Your task to perform on an android device: Set the phone to "Do not disturb". Image 0: 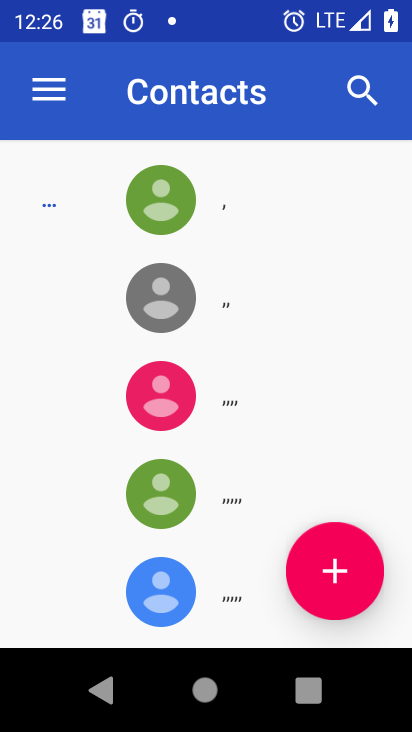
Step 0: press home button
Your task to perform on an android device: Set the phone to "Do not disturb". Image 1: 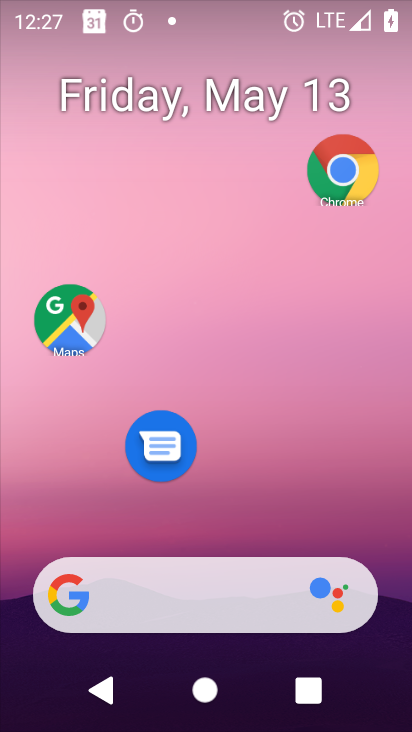
Step 1: drag from (319, 563) to (329, 5)
Your task to perform on an android device: Set the phone to "Do not disturb". Image 2: 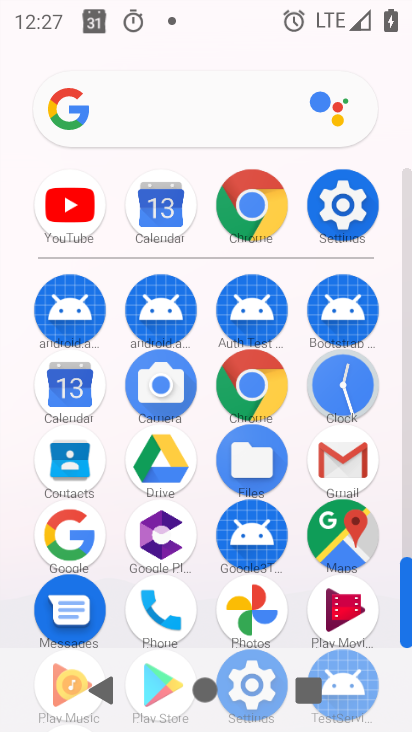
Step 2: click (336, 213)
Your task to perform on an android device: Set the phone to "Do not disturb". Image 3: 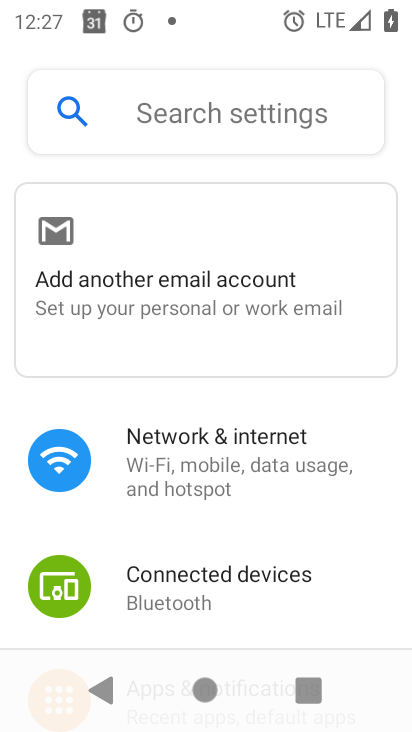
Step 3: drag from (326, 629) to (353, 165)
Your task to perform on an android device: Set the phone to "Do not disturb". Image 4: 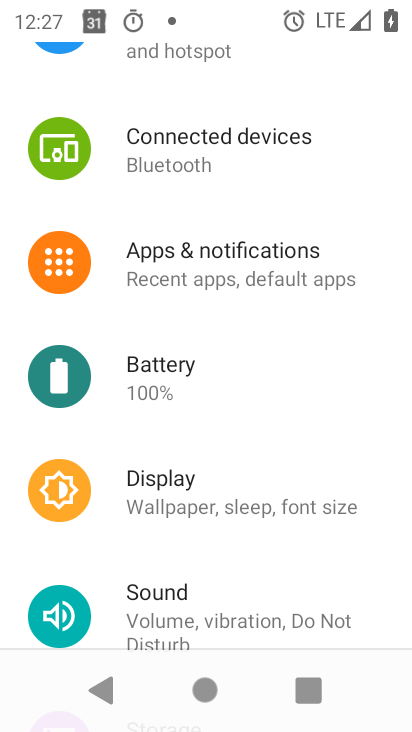
Step 4: drag from (296, 597) to (326, 336)
Your task to perform on an android device: Set the phone to "Do not disturb". Image 5: 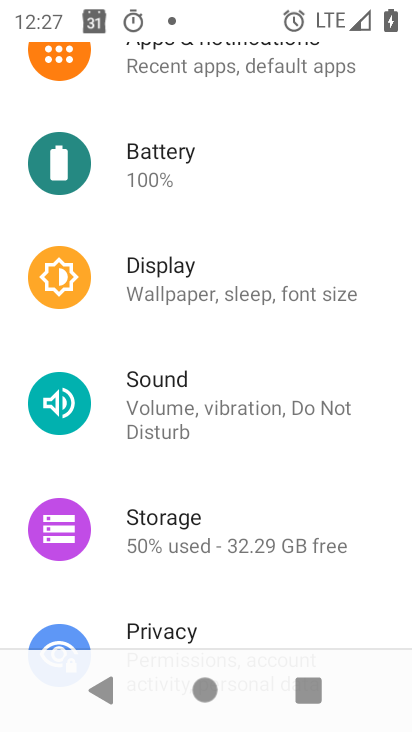
Step 5: click (262, 409)
Your task to perform on an android device: Set the phone to "Do not disturb". Image 6: 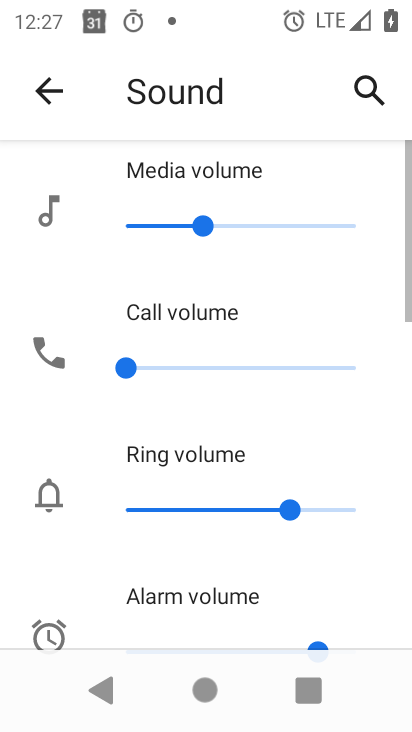
Step 6: drag from (276, 584) to (310, 109)
Your task to perform on an android device: Set the phone to "Do not disturb". Image 7: 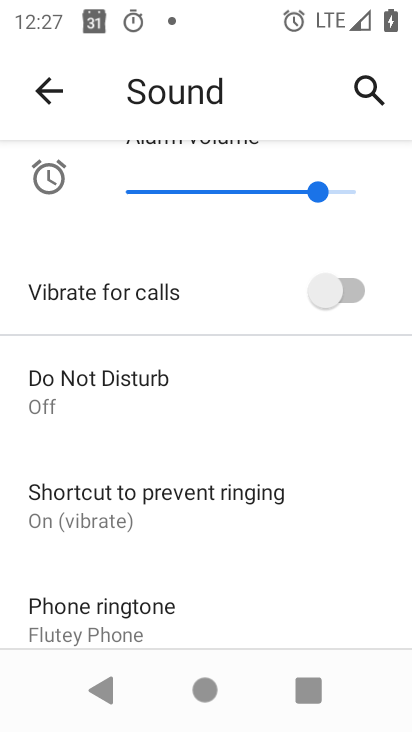
Step 7: click (134, 395)
Your task to perform on an android device: Set the phone to "Do not disturb". Image 8: 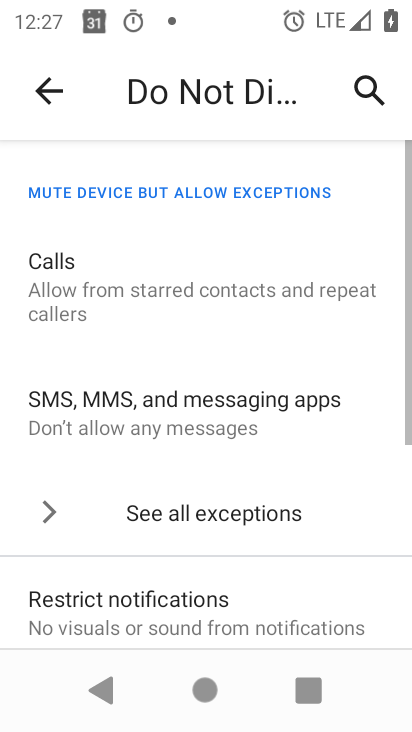
Step 8: drag from (180, 591) to (246, 100)
Your task to perform on an android device: Set the phone to "Do not disturb". Image 9: 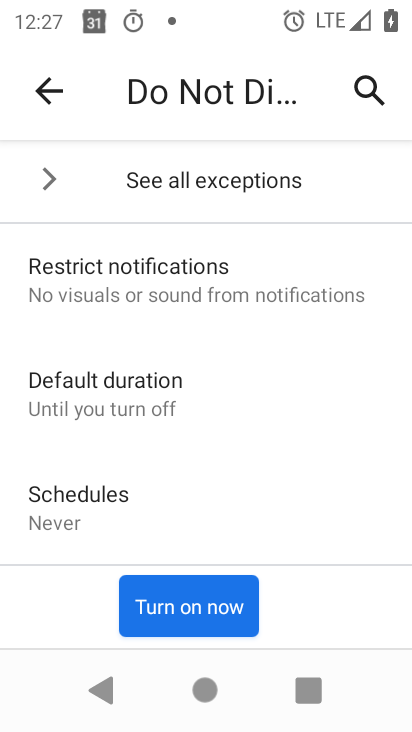
Step 9: click (211, 607)
Your task to perform on an android device: Set the phone to "Do not disturb". Image 10: 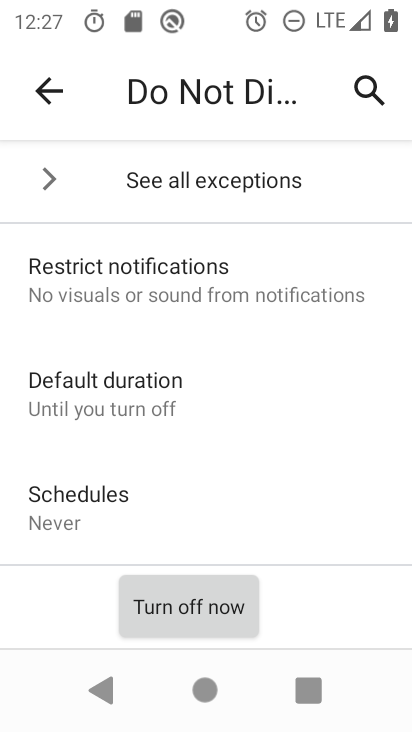
Step 10: task complete